Your task to perform on an android device: change the upload size in google photos Image 0: 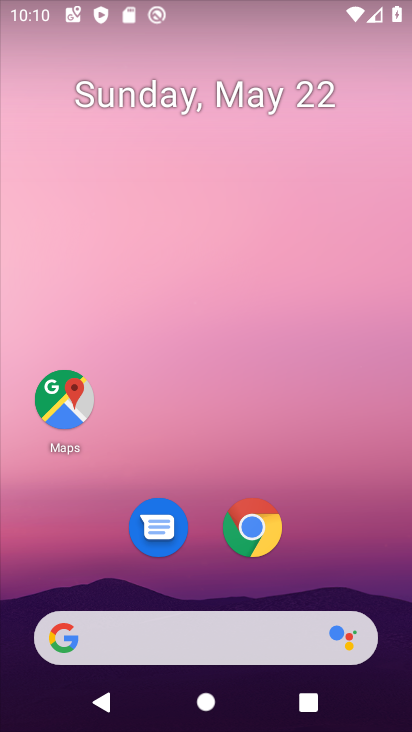
Step 0: drag from (345, 555) to (300, 3)
Your task to perform on an android device: change the upload size in google photos Image 1: 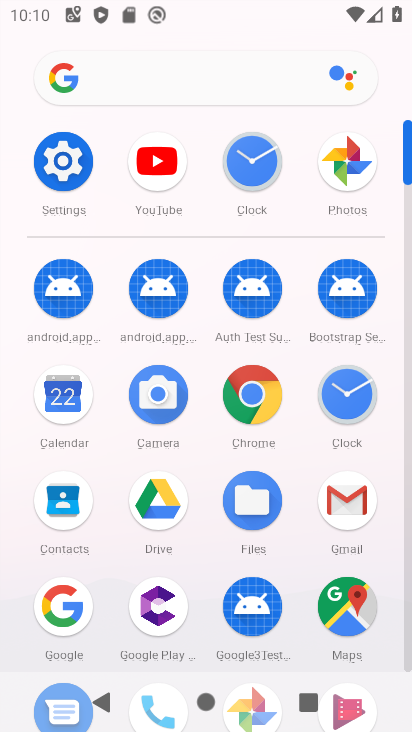
Step 1: task complete